Your task to perform on an android device: turn smart compose on in the gmail app Image 0: 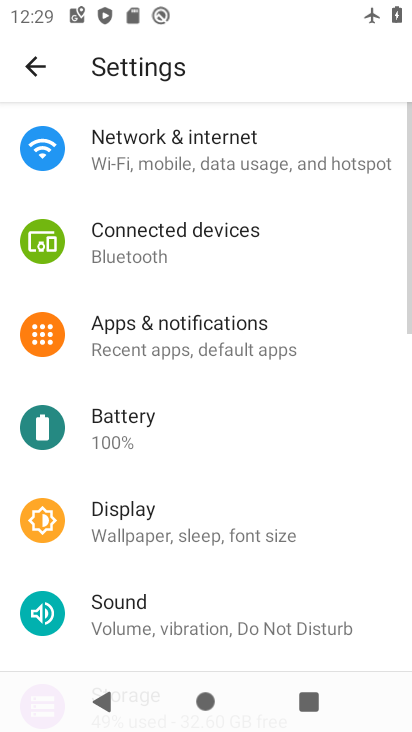
Step 0: press home button
Your task to perform on an android device: turn smart compose on in the gmail app Image 1: 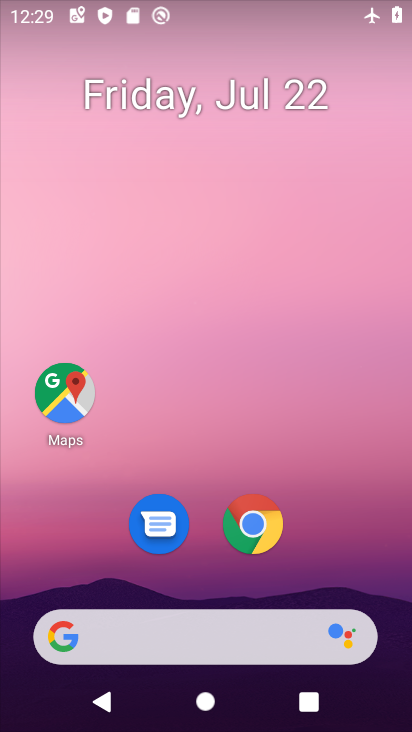
Step 1: drag from (337, 560) to (347, 72)
Your task to perform on an android device: turn smart compose on in the gmail app Image 2: 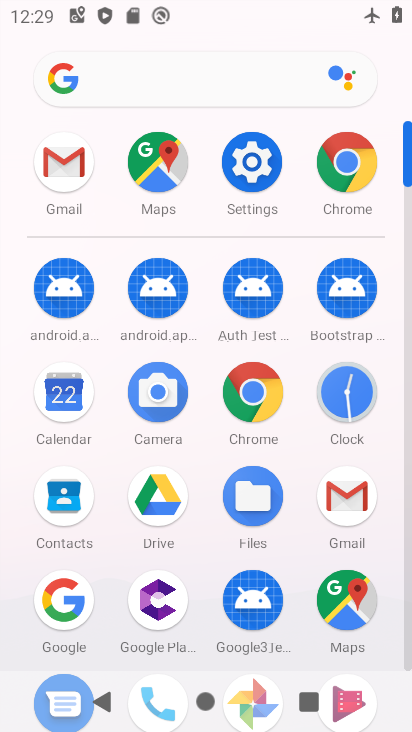
Step 2: click (73, 170)
Your task to perform on an android device: turn smart compose on in the gmail app Image 3: 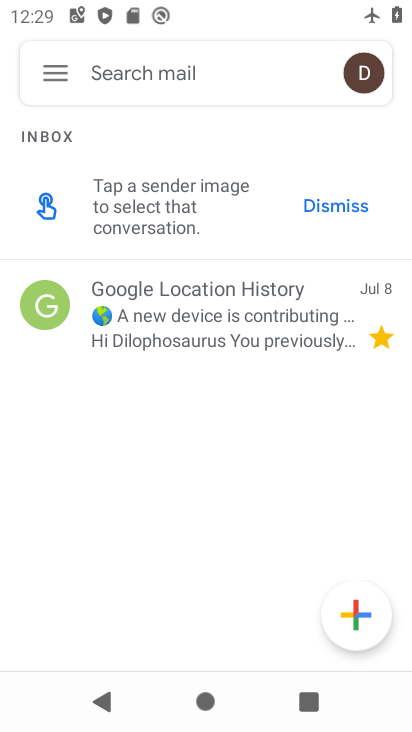
Step 3: click (52, 72)
Your task to perform on an android device: turn smart compose on in the gmail app Image 4: 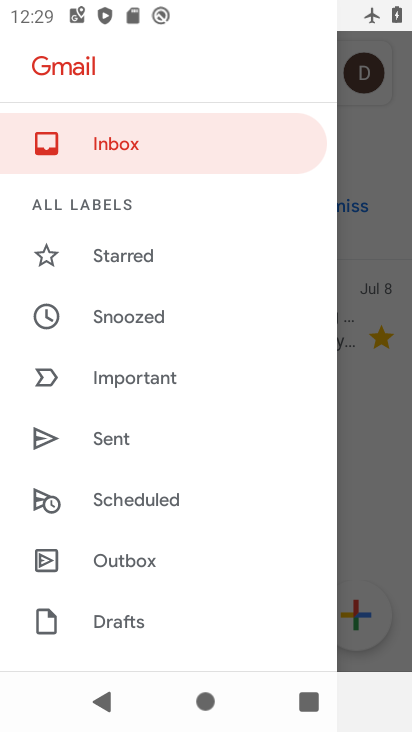
Step 4: drag from (195, 541) to (179, 66)
Your task to perform on an android device: turn smart compose on in the gmail app Image 5: 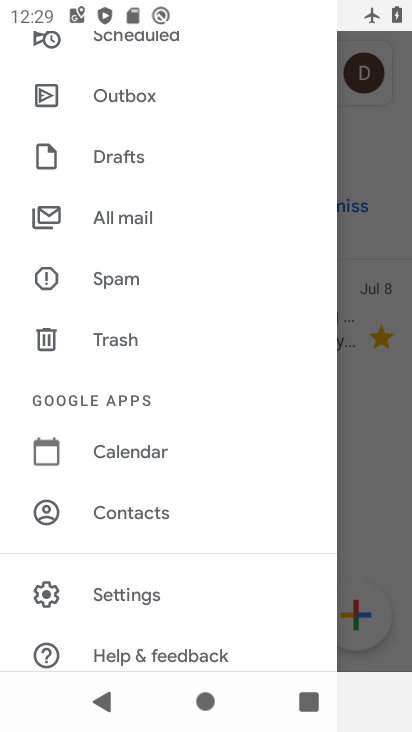
Step 5: drag from (168, 507) to (192, 245)
Your task to perform on an android device: turn smart compose on in the gmail app Image 6: 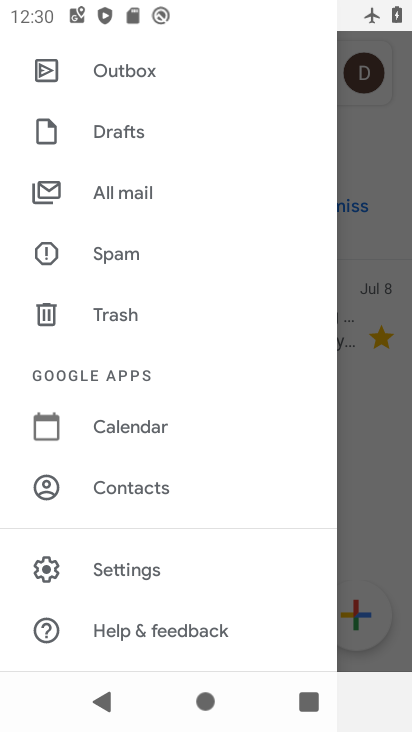
Step 6: click (145, 567)
Your task to perform on an android device: turn smart compose on in the gmail app Image 7: 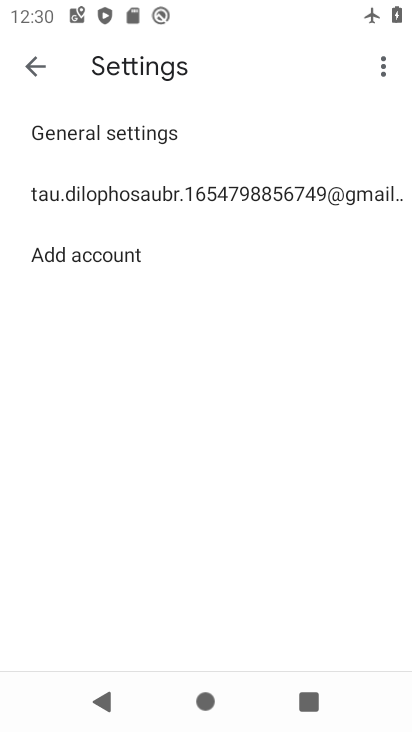
Step 7: click (219, 183)
Your task to perform on an android device: turn smart compose on in the gmail app Image 8: 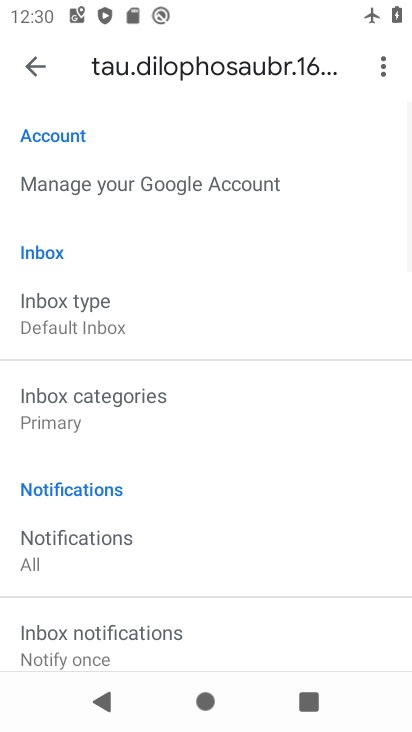
Step 8: task complete